Your task to perform on an android device: Check the news Image 0: 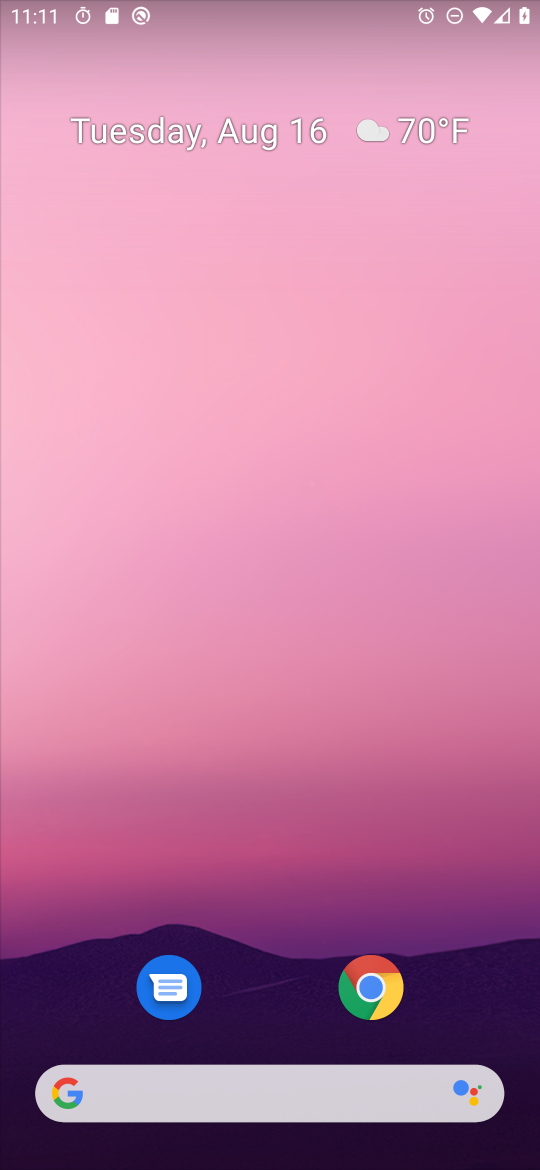
Step 0: drag from (9, 1118) to (306, 313)
Your task to perform on an android device: Check the news Image 1: 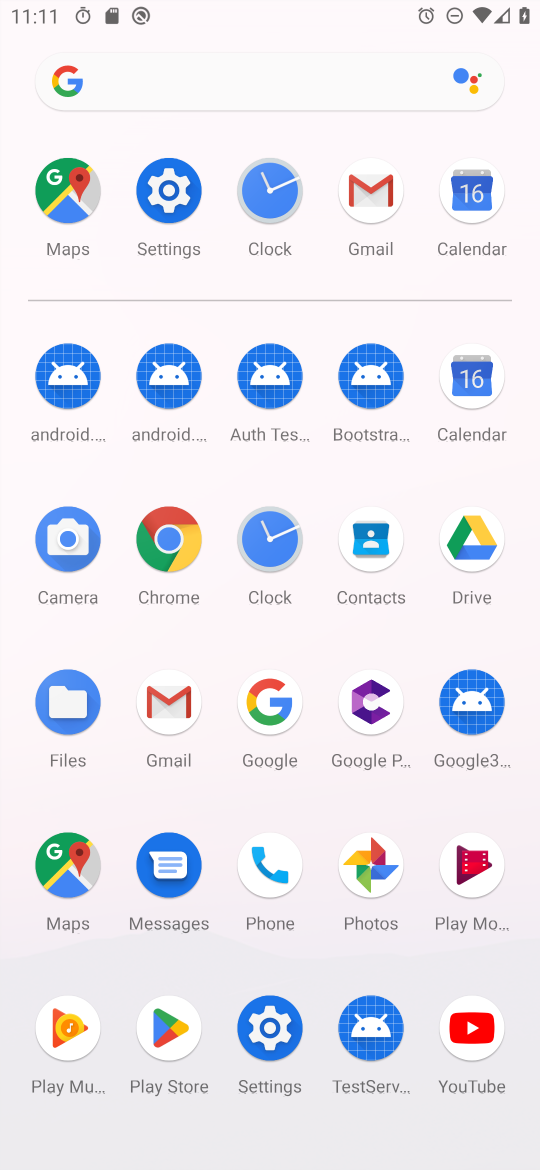
Step 1: click (144, 95)
Your task to perform on an android device: Check the news Image 2: 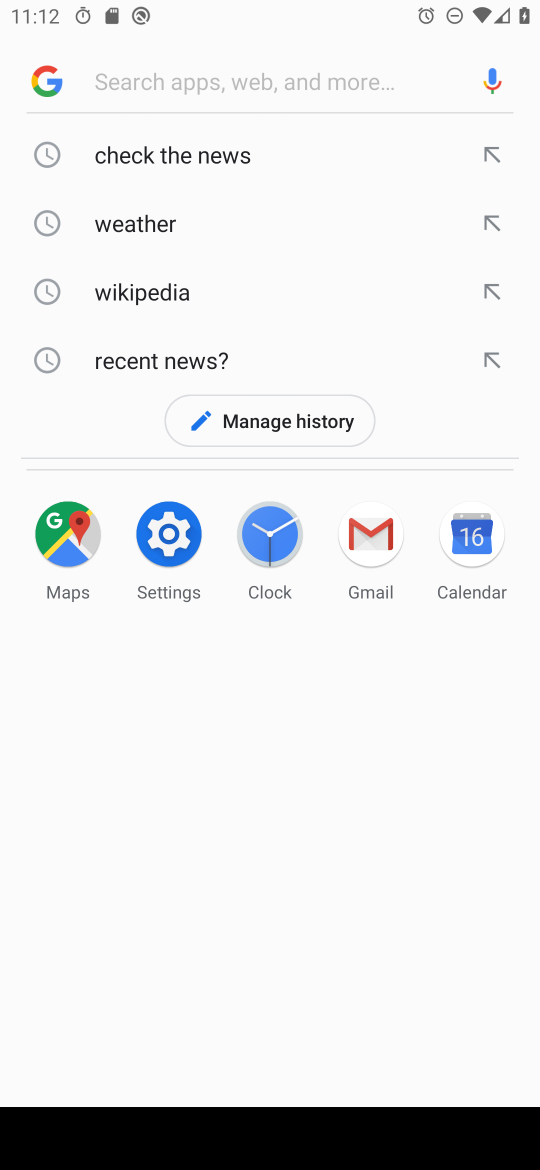
Step 2: type "Check the news"
Your task to perform on an android device: Check the news Image 3: 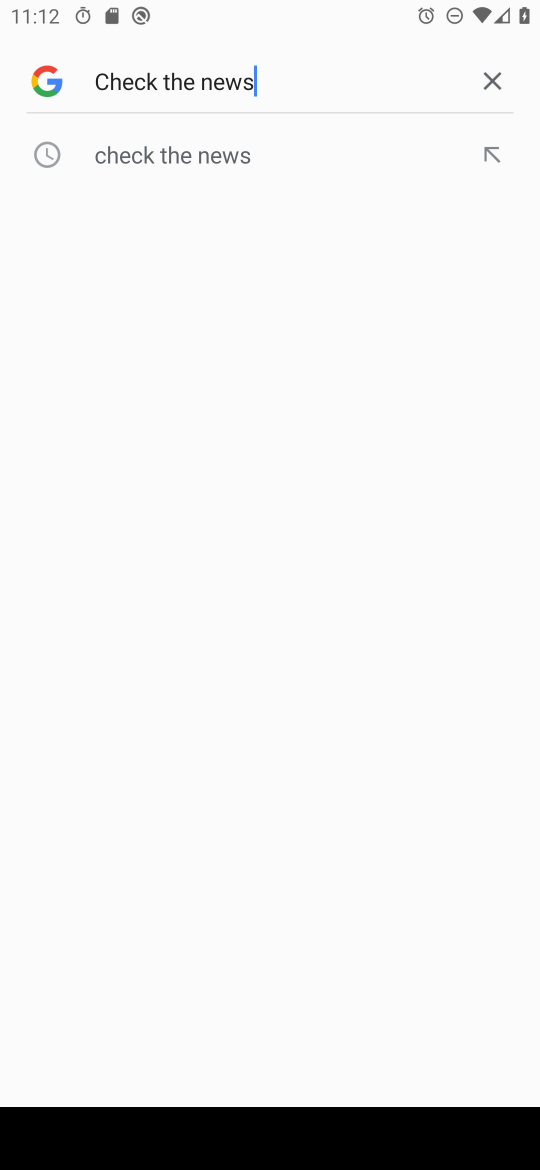
Step 3: type ""
Your task to perform on an android device: Check the news Image 4: 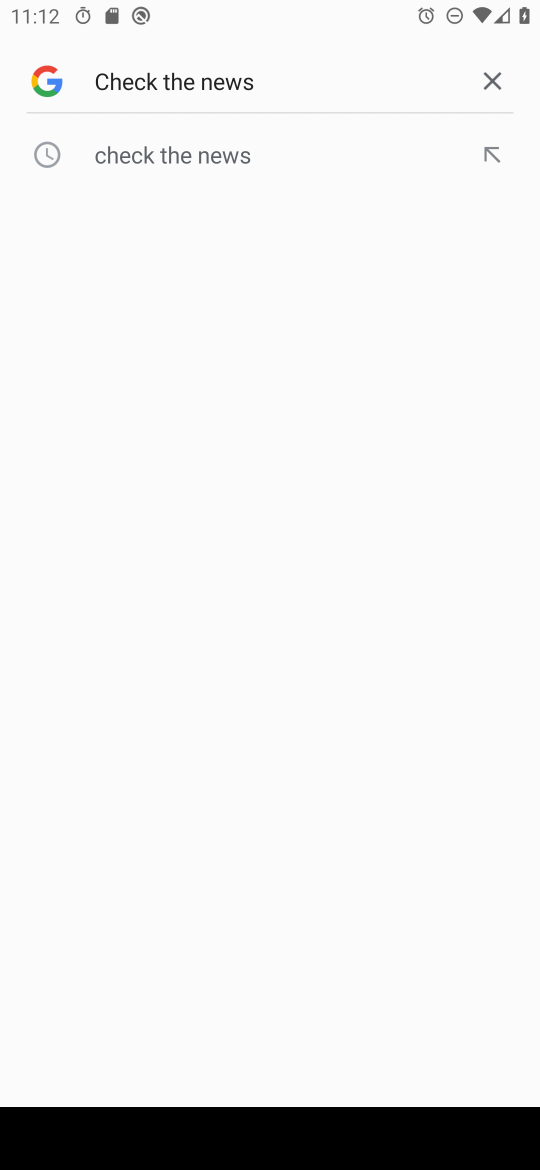
Step 4: type ""
Your task to perform on an android device: Check the news Image 5: 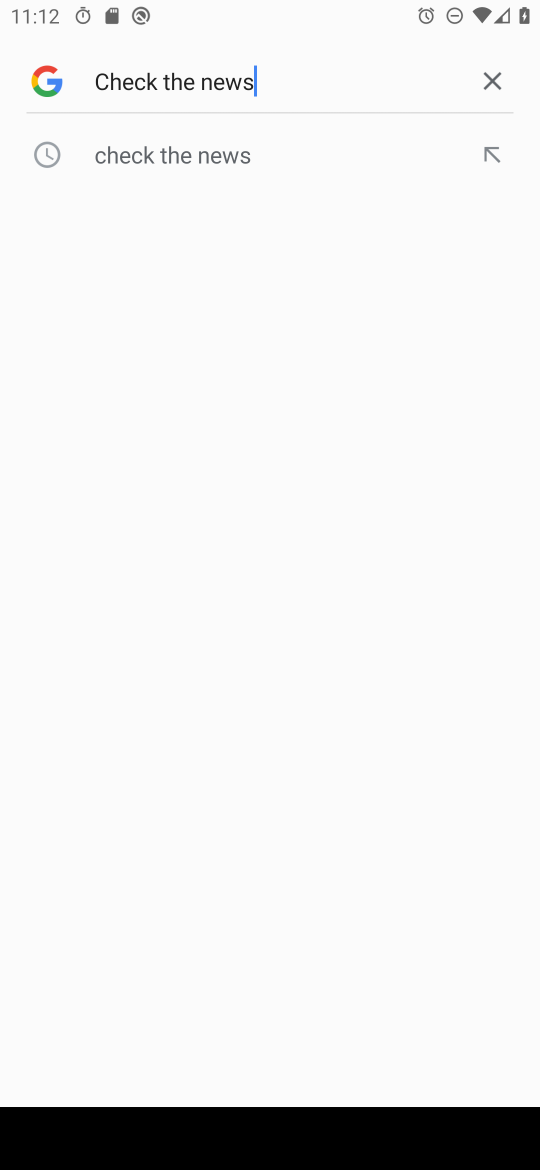
Step 5: type ""
Your task to perform on an android device: Check the news Image 6: 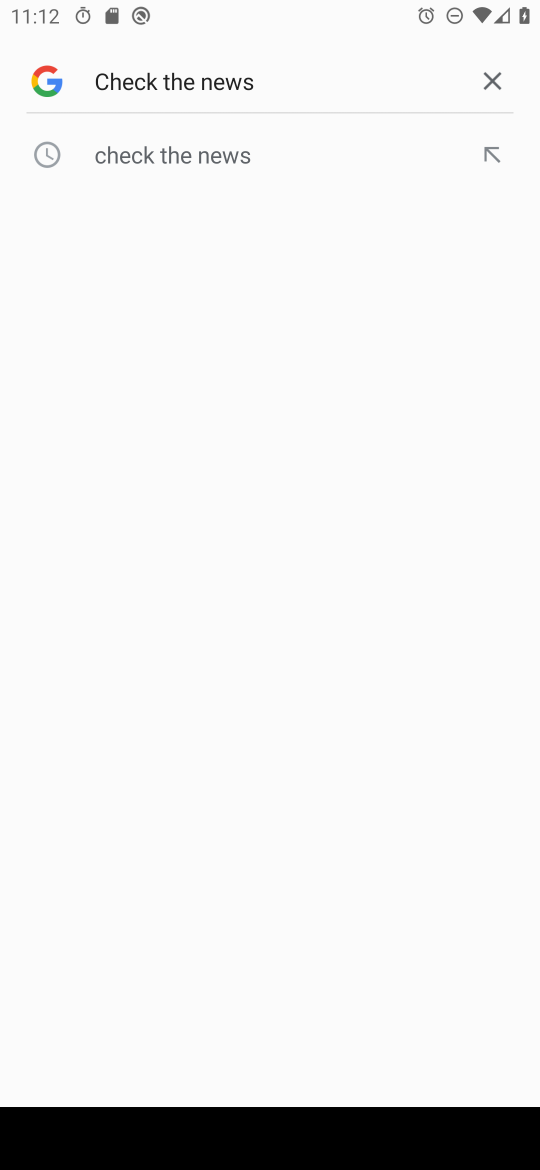
Step 6: task complete